Your task to perform on an android device: Open location settings Image 0: 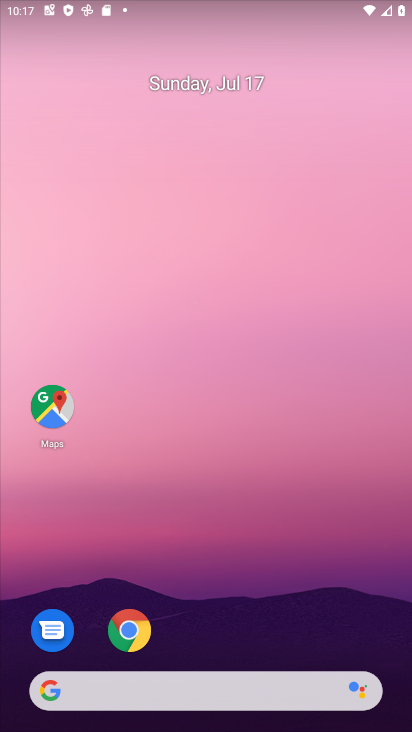
Step 0: drag from (200, 649) to (202, 178)
Your task to perform on an android device: Open location settings Image 1: 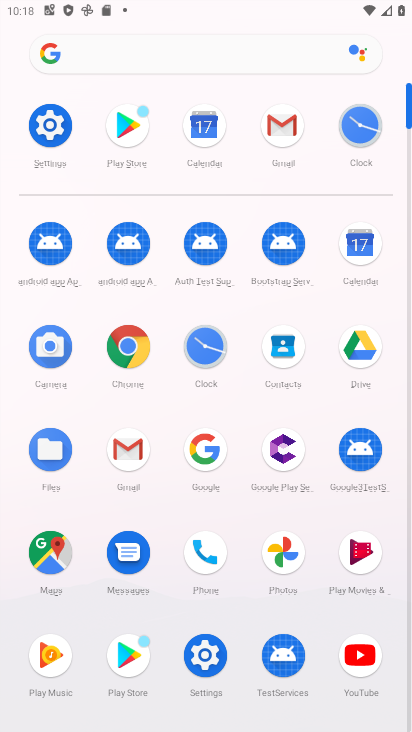
Step 1: click (220, 674)
Your task to perform on an android device: Open location settings Image 2: 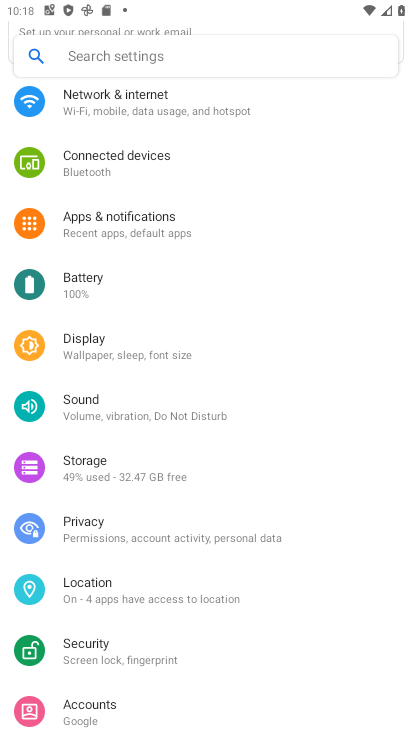
Step 2: click (138, 600)
Your task to perform on an android device: Open location settings Image 3: 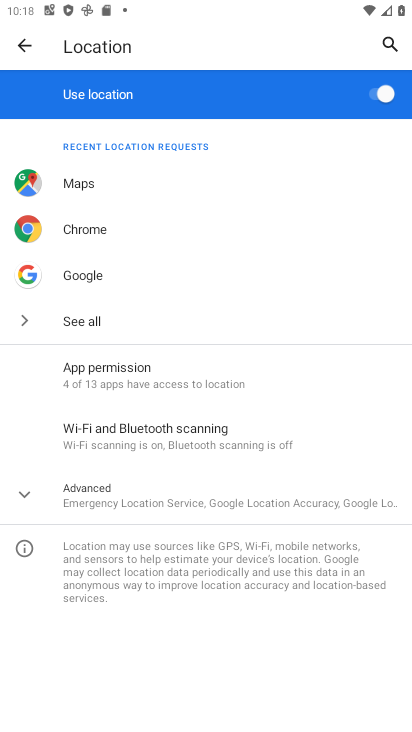
Step 3: task complete